Your task to perform on an android device: change keyboard looks Image 0: 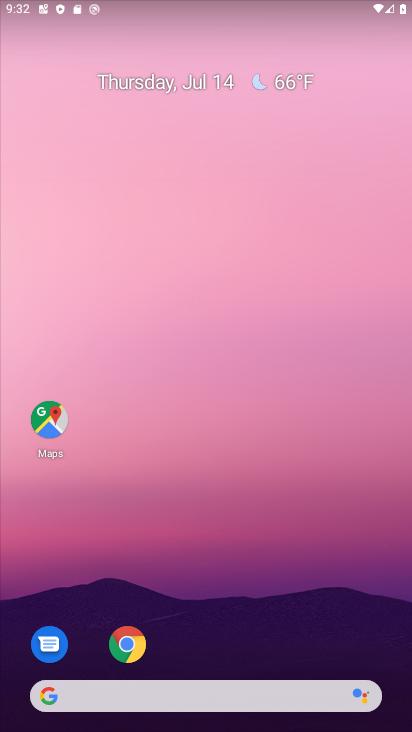
Step 0: drag from (228, 706) to (172, 451)
Your task to perform on an android device: change keyboard looks Image 1: 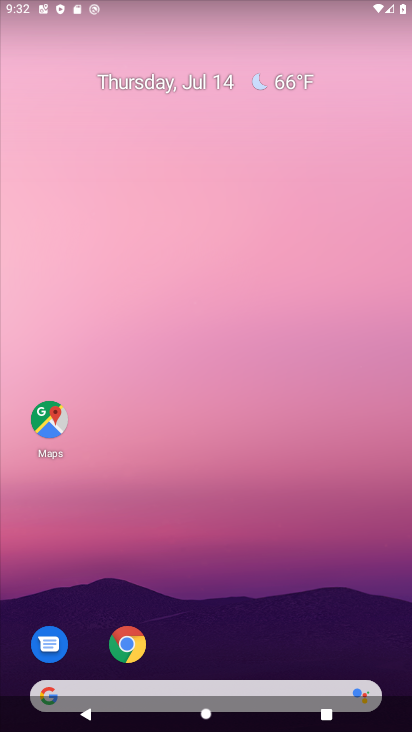
Step 1: drag from (220, 560) to (187, 180)
Your task to perform on an android device: change keyboard looks Image 2: 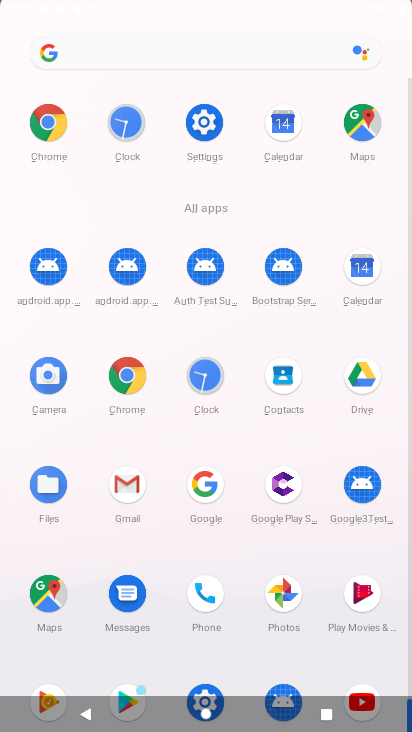
Step 2: drag from (260, 462) to (260, 222)
Your task to perform on an android device: change keyboard looks Image 3: 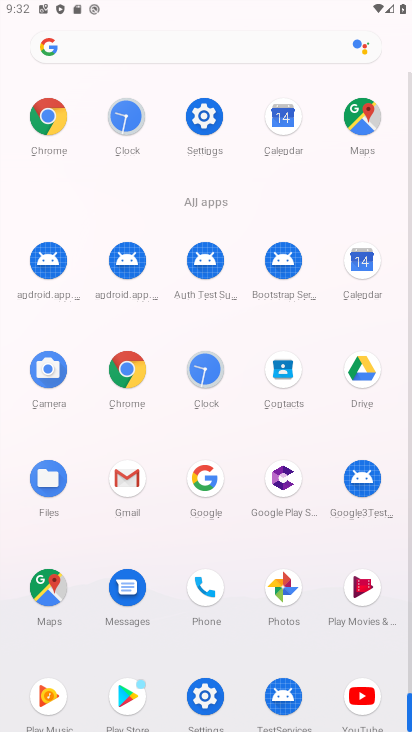
Step 3: click (203, 694)
Your task to perform on an android device: change keyboard looks Image 4: 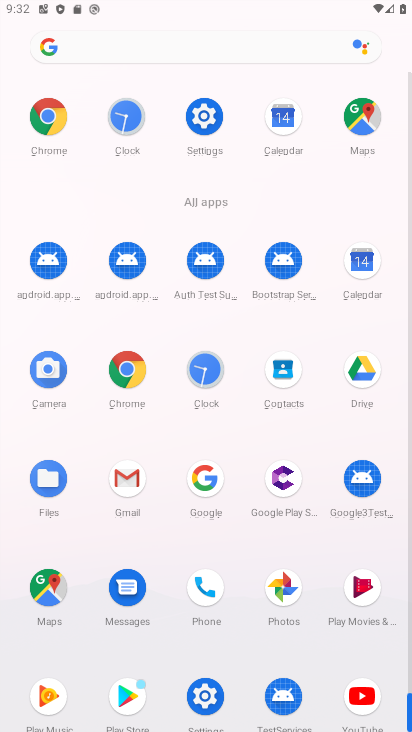
Step 4: click (204, 703)
Your task to perform on an android device: change keyboard looks Image 5: 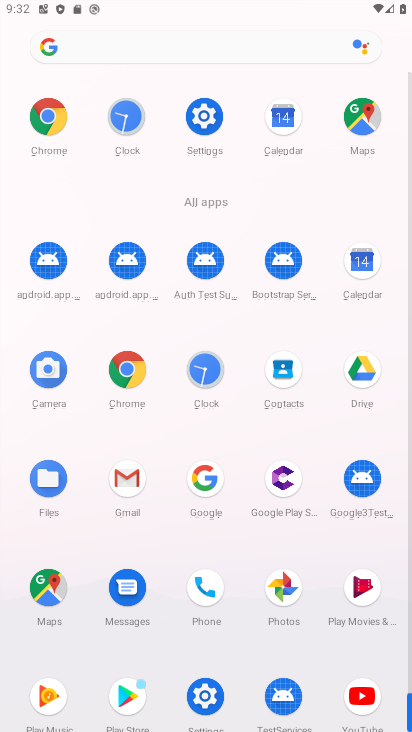
Step 5: click (204, 703)
Your task to perform on an android device: change keyboard looks Image 6: 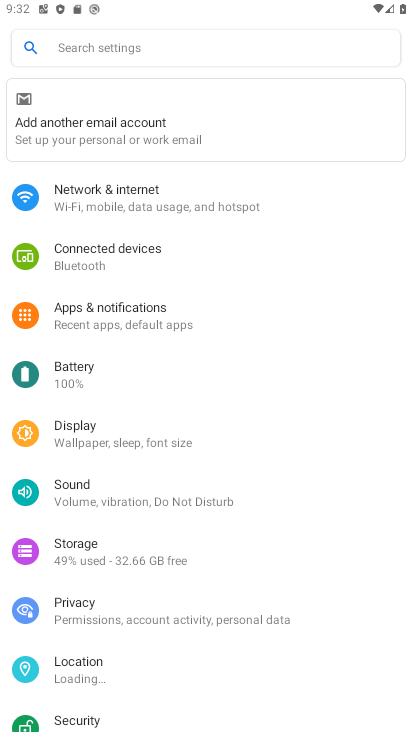
Step 6: drag from (129, 571) to (116, 245)
Your task to perform on an android device: change keyboard looks Image 7: 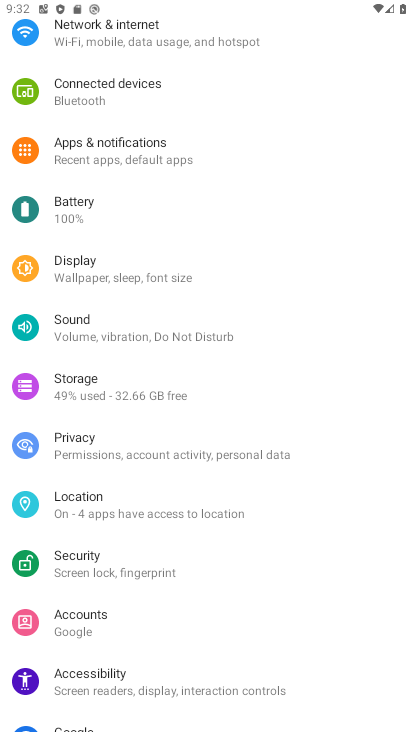
Step 7: drag from (141, 463) to (108, 290)
Your task to perform on an android device: change keyboard looks Image 8: 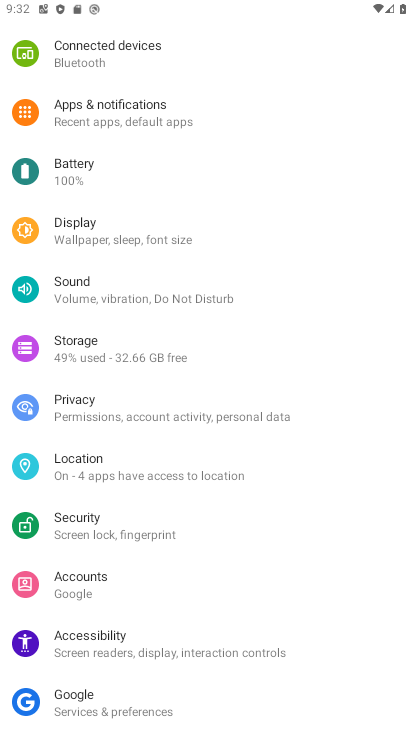
Step 8: drag from (107, 597) to (89, 335)
Your task to perform on an android device: change keyboard looks Image 9: 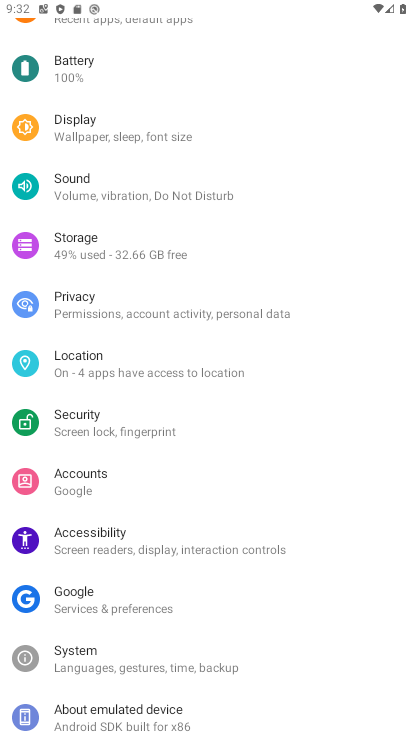
Step 9: click (79, 659)
Your task to perform on an android device: change keyboard looks Image 10: 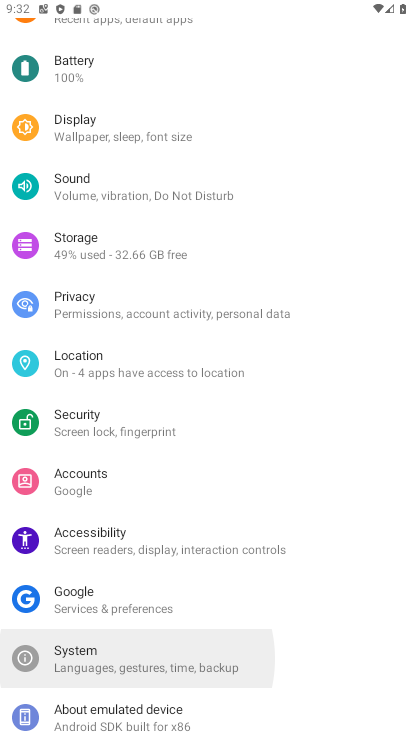
Step 10: click (79, 659)
Your task to perform on an android device: change keyboard looks Image 11: 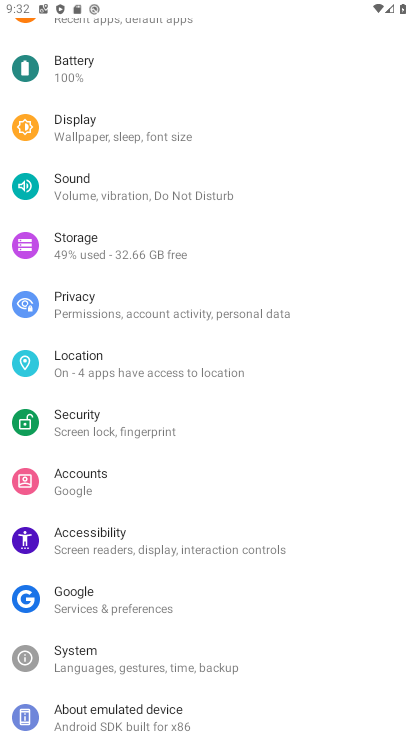
Step 11: click (77, 654)
Your task to perform on an android device: change keyboard looks Image 12: 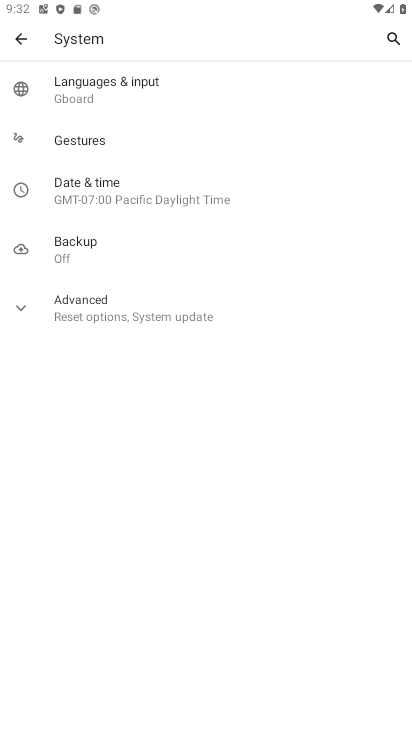
Step 12: click (76, 94)
Your task to perform on an android device: change keyboard looks Image 13: 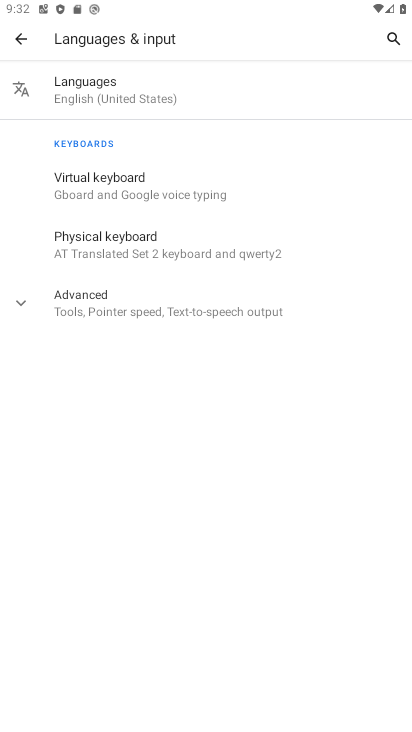
Step 13: click (80, 76)
Your task to perform on an android device: change keyboard looks Image 14: 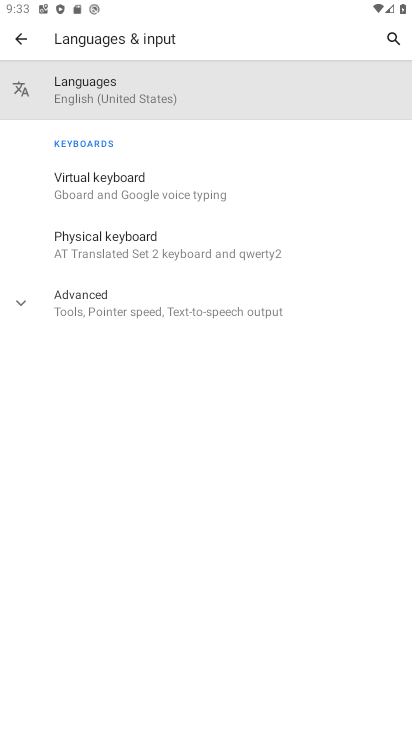
Step 14: click (80, 79)
Your task to perform on an android device: change keyboard looks Image 15: 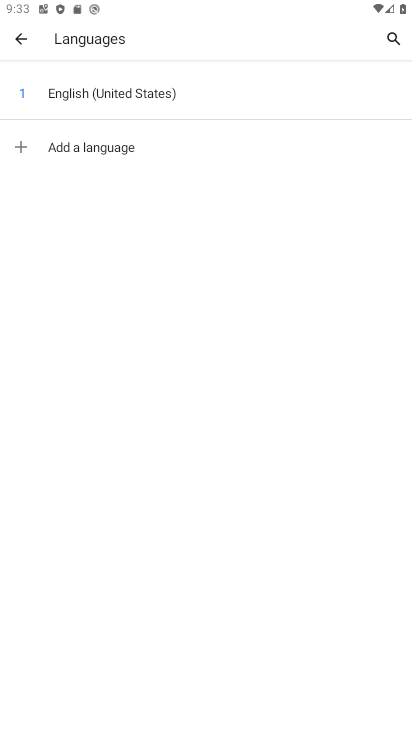
Step 15: click (20, 31)
Your task to perform on an android device: change keyboard looks Image 16: 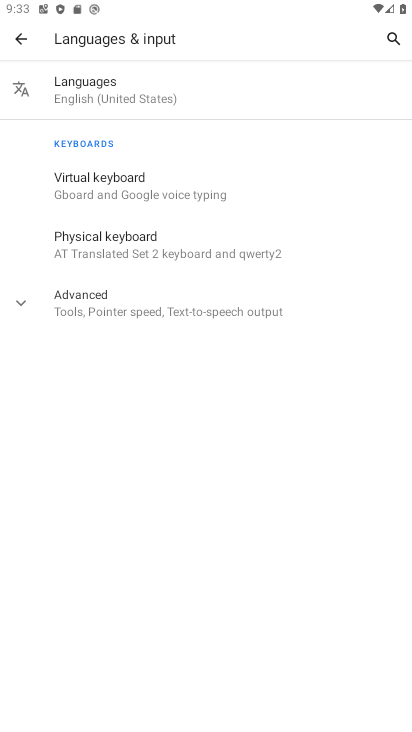
Step 16: click (112, 196)
Your task to perform on an android device: change keyboard looks Image 17: 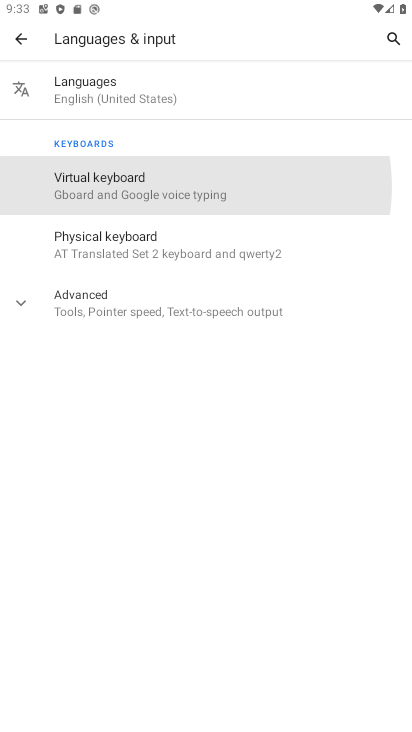
Step 17: click (112, 196)
Your task to perform on an android device: change keyboard looks Image 18: 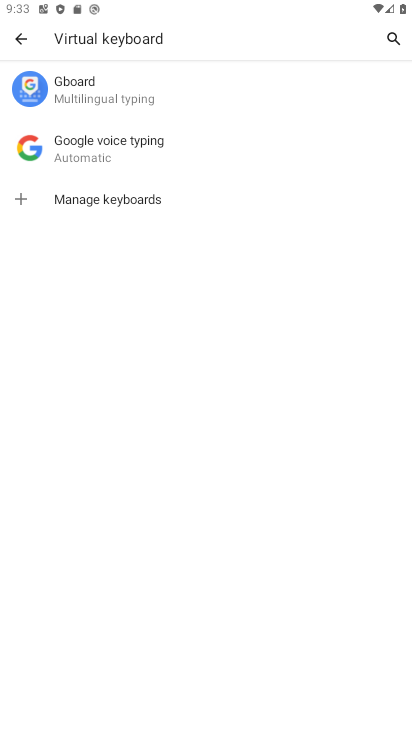
Step 18: click (81, 98)
Your task to perform on an android device: change keyboard looks Image 19: 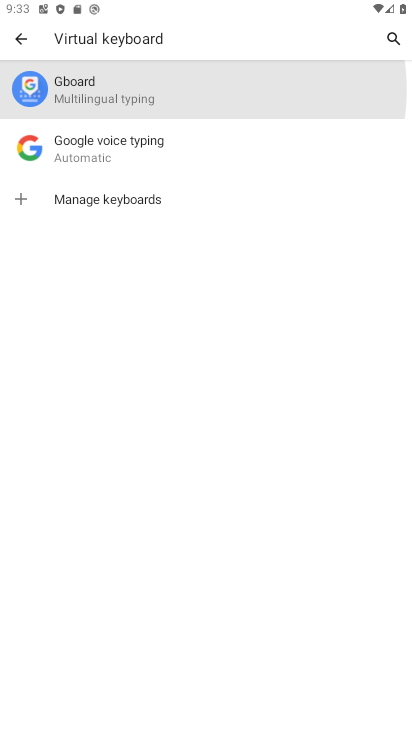
Step 19: click (80, 97)
Your task to perform on an android device: change keyboard looks Image 20: 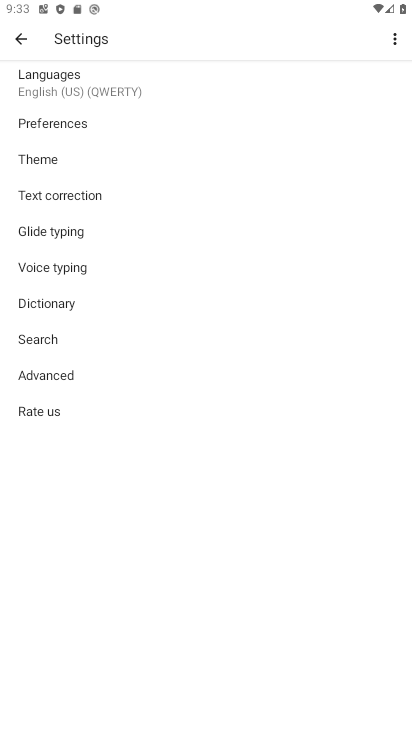
Step 20: click (37, 155)
Your task to perform on an android device: change keyboard looks Image 21: 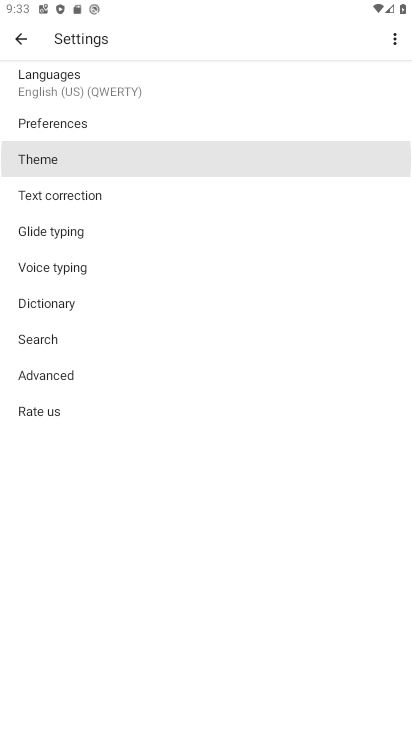
Step 21: click (36, 156)
Your task to perform on an android device: change keyboard looks Image 22: 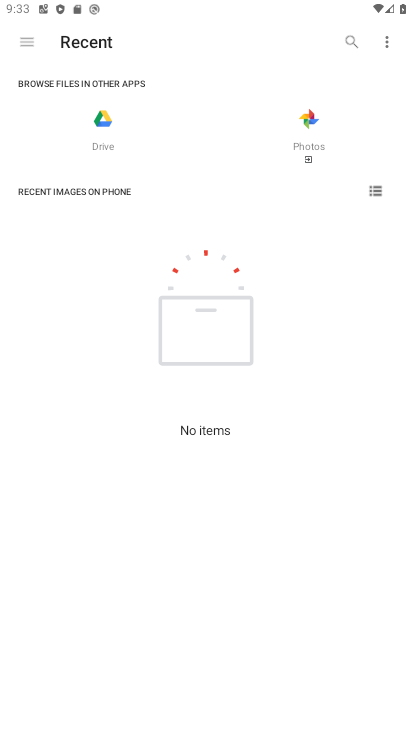
Step 22: click (28, 41)
Your task to perform on an android device: change keyboard looks Image 23: 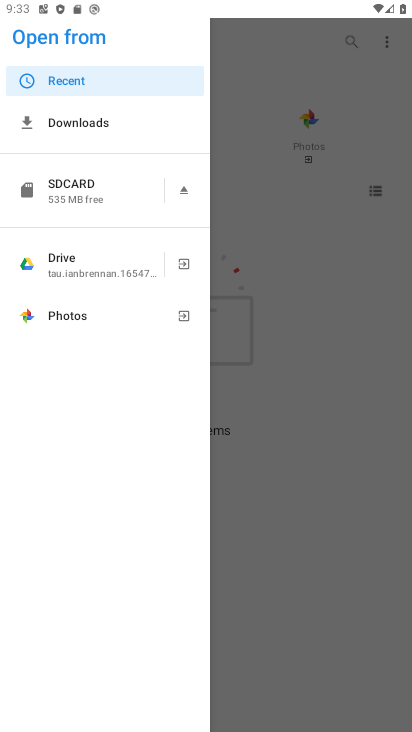
Step 23: click (327, 413)
Your task to perform on an android device: change keyboard looks Image 24: 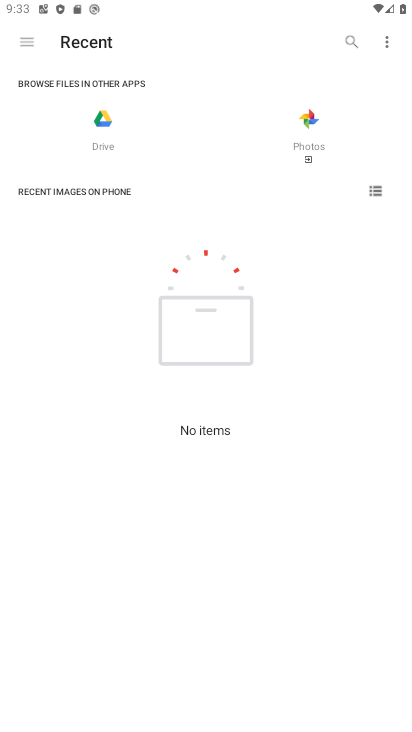
Step 24: task complete